Your task to perform on an android device: turn off airplane mode Image 0: 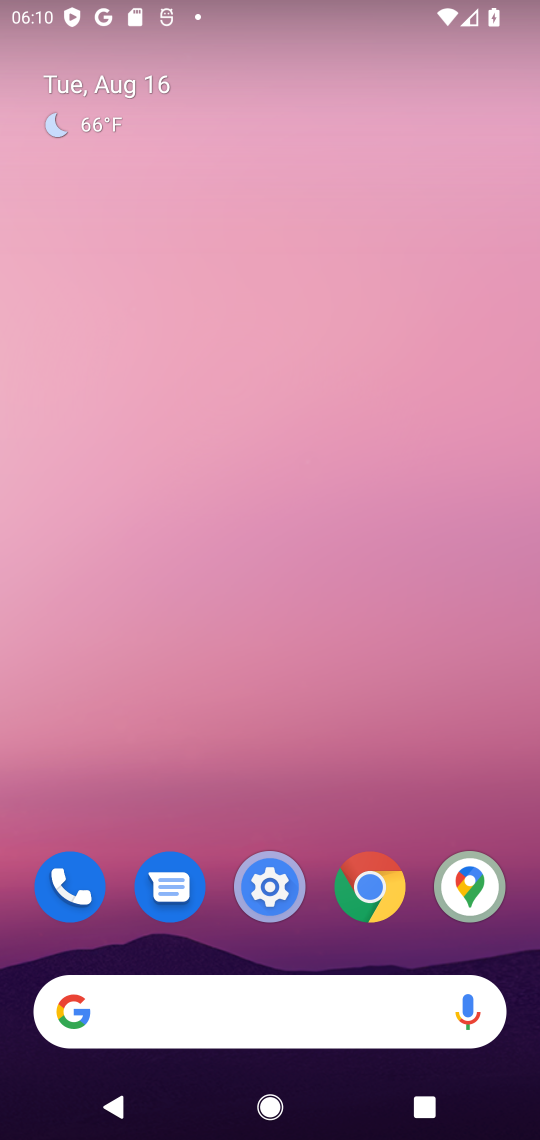
Step 0: drag from (278, 712) to (330, 51)
Your task to perform on an android device: turn off airplane mode Image 1: 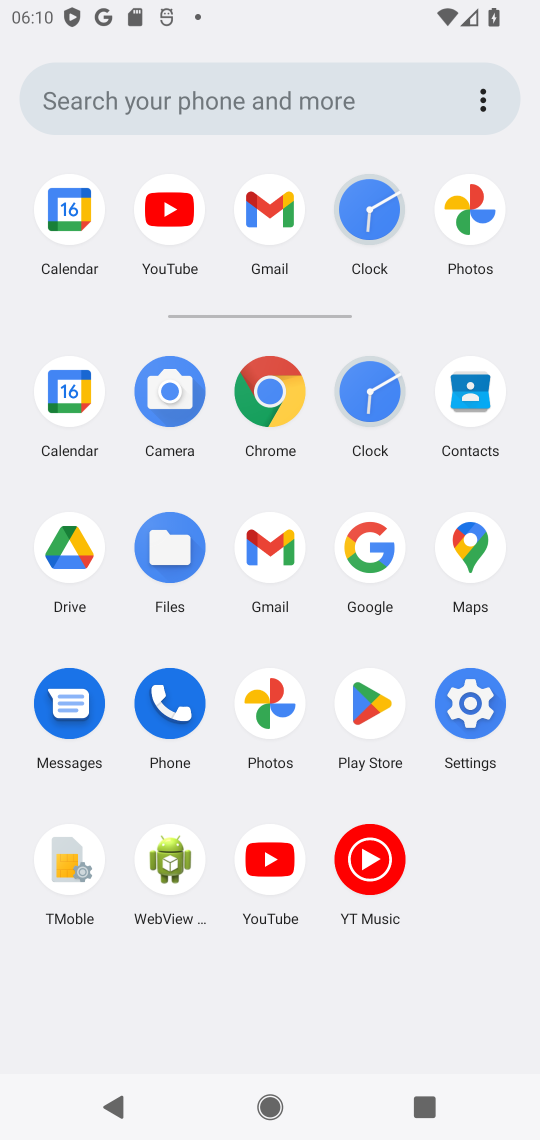
Step 1: click (470, 687)
Your task to perform on an android device: turn off airplane mode Image 2: 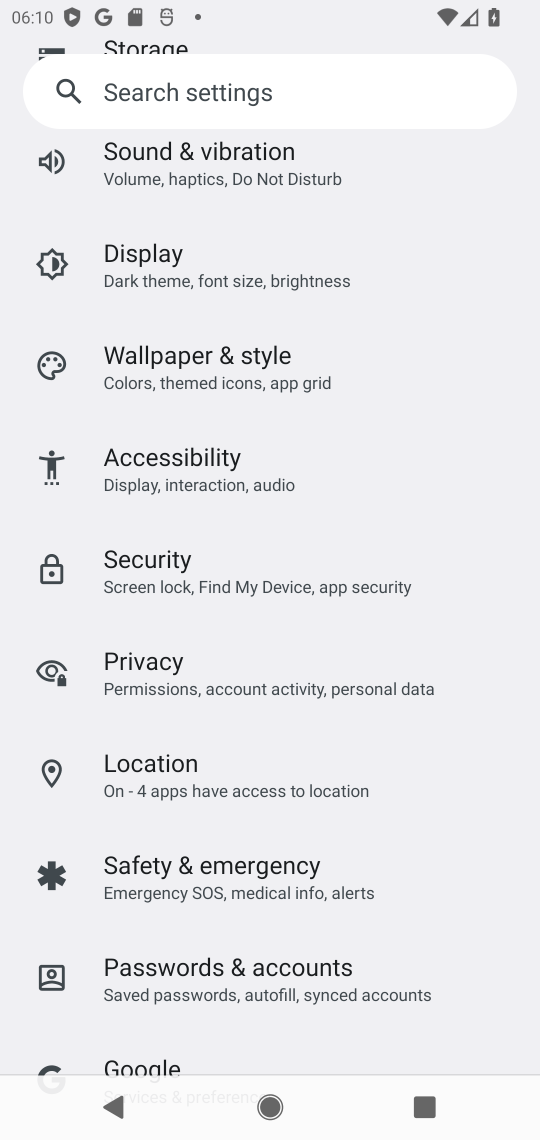
Step 2: drag from (416, 192) to (322, 818)
Your task to perform on an android device: turn off airplane mode Image 3: 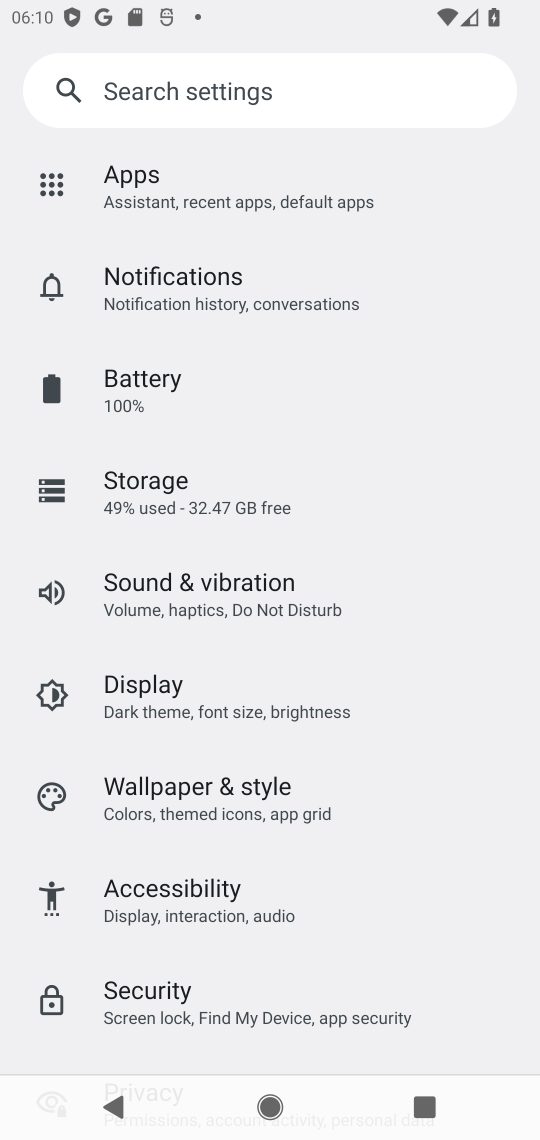
Step 3: drag from (344, 223) to (379, 720)
Your task to perform on an android device: turn off airplane mode Image 4: 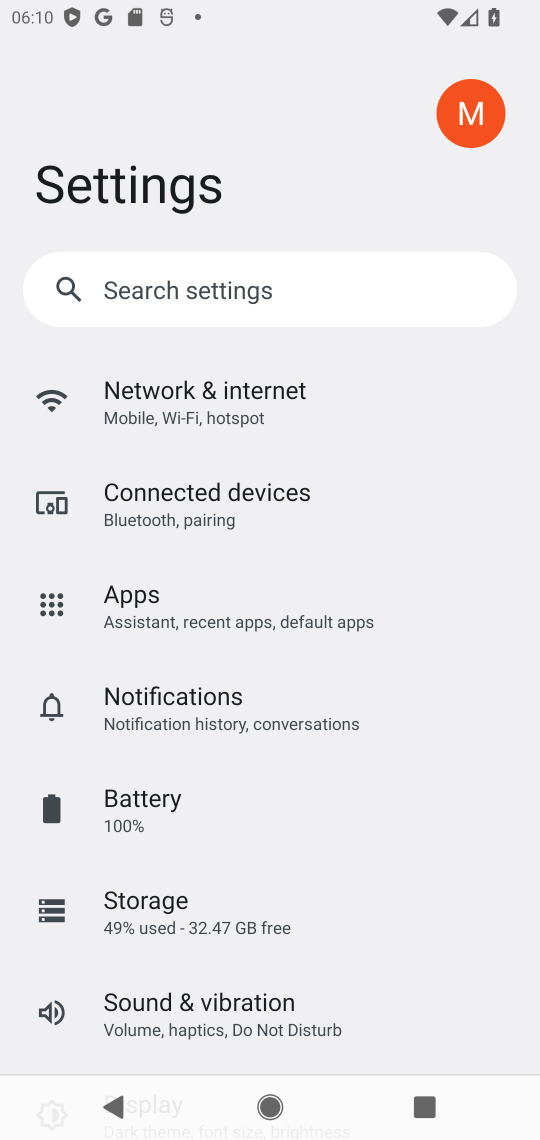
Step 4: click (238, 398)
Your task to perform on an android device: turn off airplane mode Image 5: 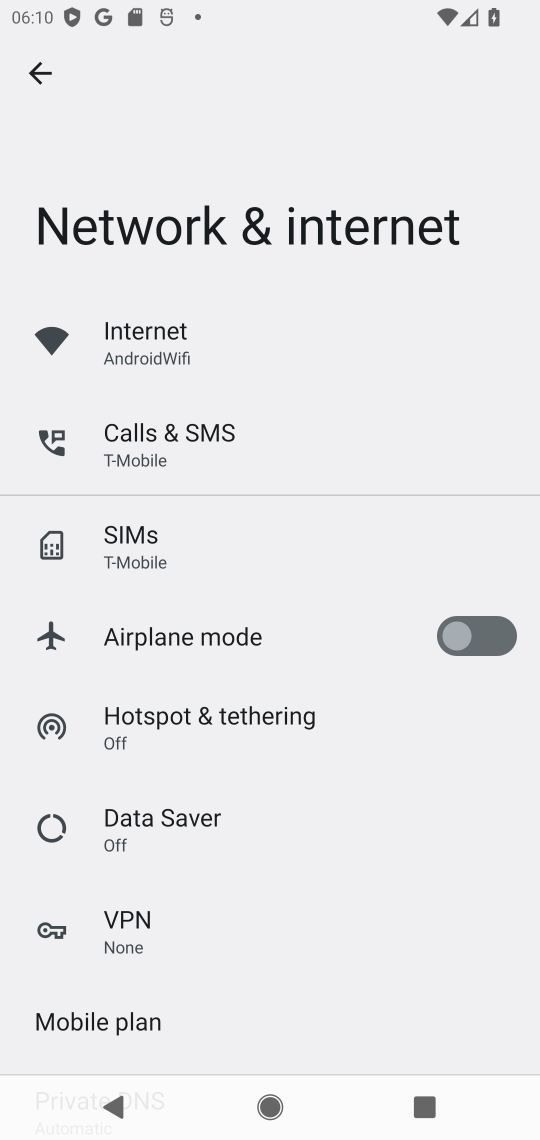
Step 5: task complete